Your task to perform on an android device: Search for "duracell triple a" on newegg.com, select the first entry, and add it to the cart. Image 0: 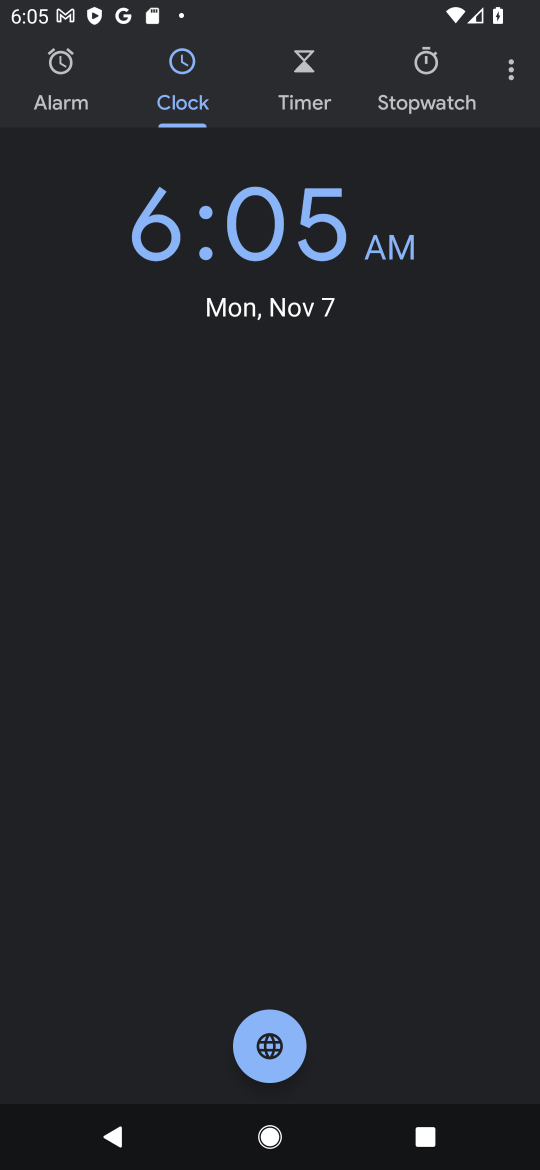
Step 0: task complete